Your task to perform on an android device: Go to accessibility settings Image 0: 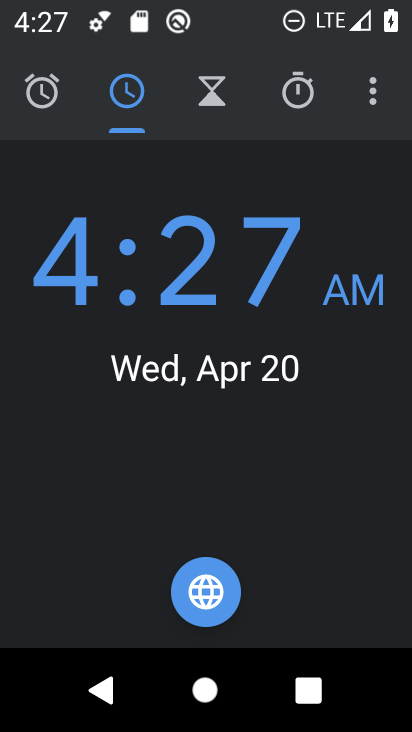
Step 0: press home button
Your task to perform on an android device: Go to accessibility settings Image 1: 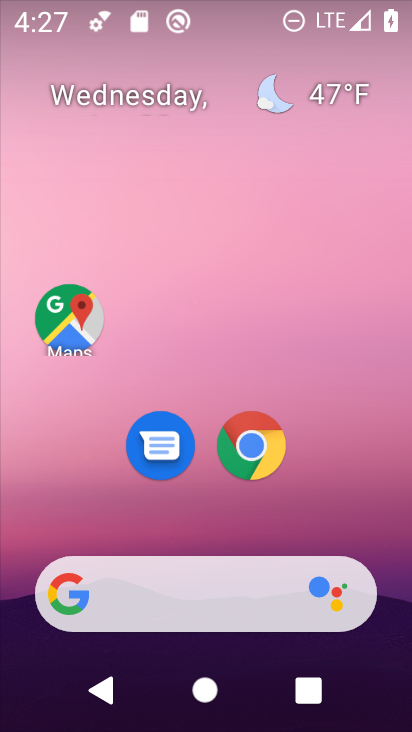
Step 1: drag from (319, 485) to (300, 42)
Your task to perform on an android device: Go to accessibility settings Image 2: 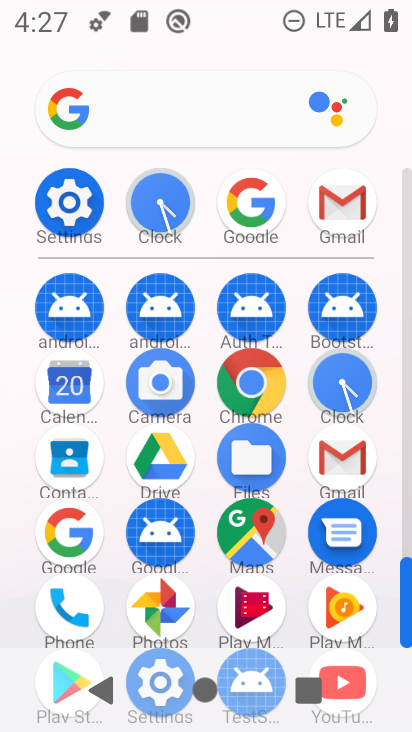
Step 2: click (70, 205)
Your task to perform on an android device: Go to accessibility settings Image 3: 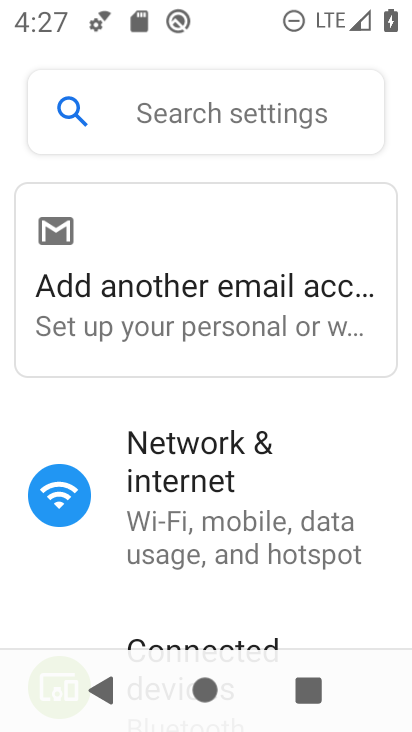
Step 3: drag from (306, 497) to (315, 248)
Your task to perform on an android device: Go to accessibility settings Image 4: 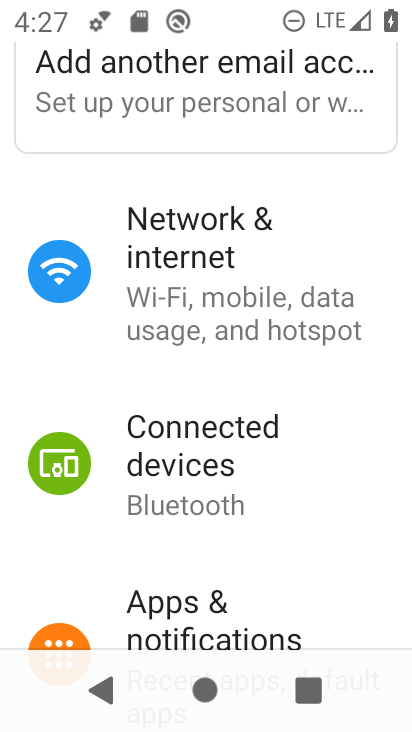
Step 4: drag from (262, 520) to (297, 282)
Your task to perform on an android device: Go to accessibility settings Image 5: 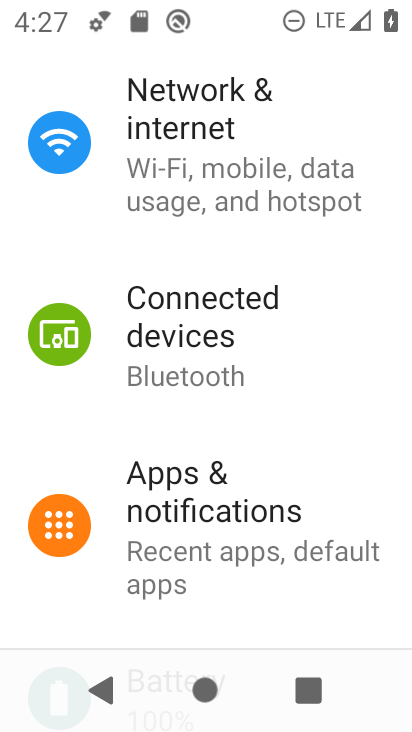
Step 5: drag from (270, 467) to (298, 318)
Your task to perform on an android device: Go to accessibility settings Image 6: 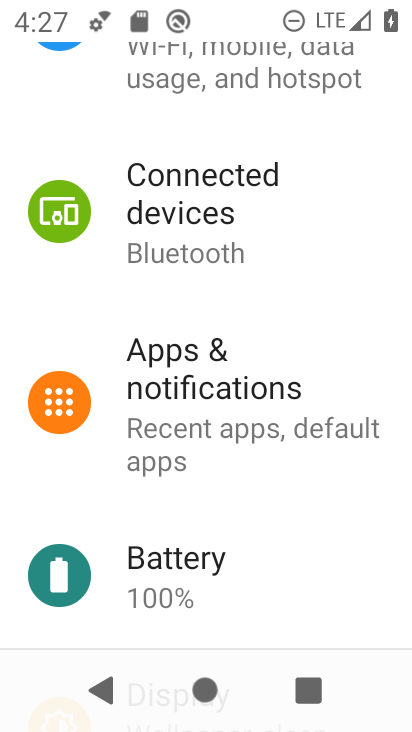
Step 6: drag from (246, 471) to (301, 288)
Your task to perform on an android device: Go to accessibility settings Image 7: 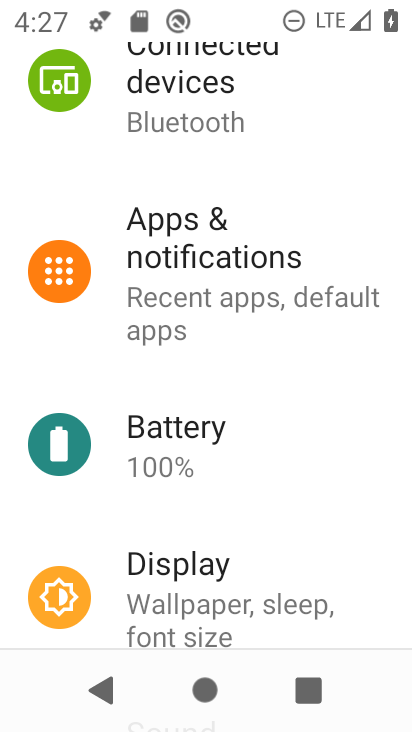
Step 7: drag from (263, 501) to (291, 267)
Your task to perform on an android device: Go to accessibility settings Image 8: 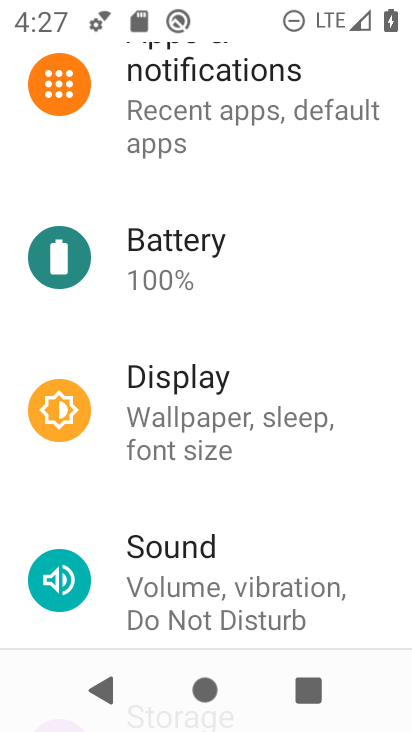
Step 8: drag from (264, 457) to (301, 263)
Your task to perform on an android device: Go to accessibility settings Image 9: 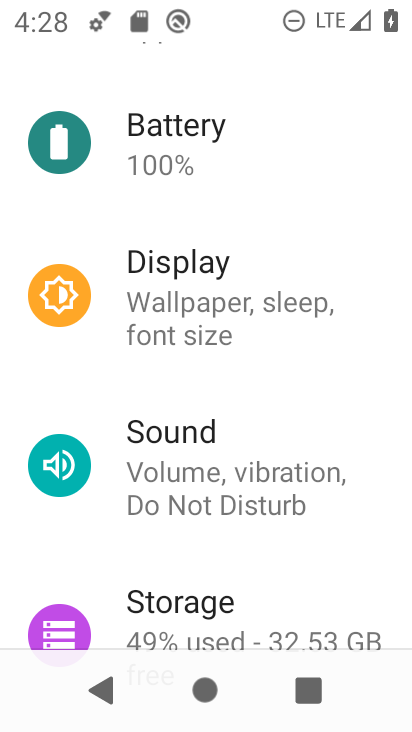
Step 9: drag from (280, 538) to (307, 322)
Your task to perform on an android device: Go to accessibility settings Image 10: 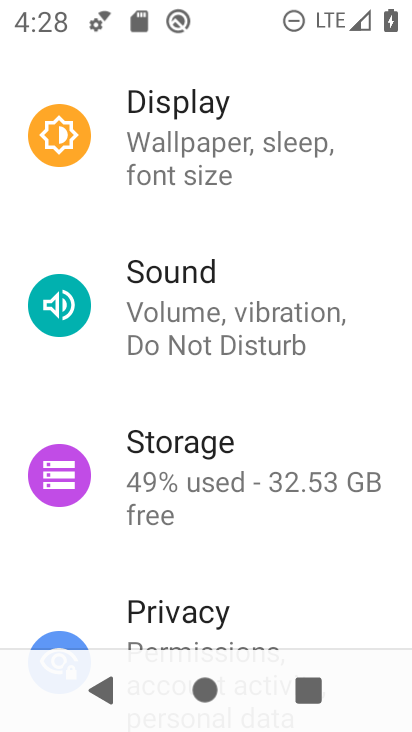
Step 10: drag from (259, 546) to (289, 340)
Your task to perform on an android device: Go to accessibility settings Image 11: 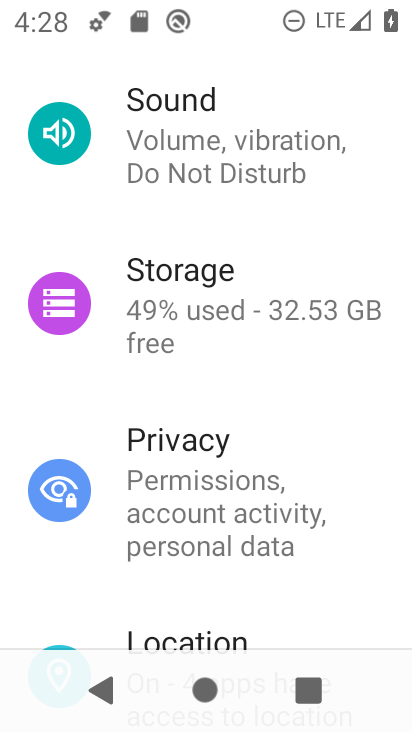
Step 11: drag from (282, 460) to (341, 306)
Your task to perform on an android device: Go to accessibility settings Image 12: 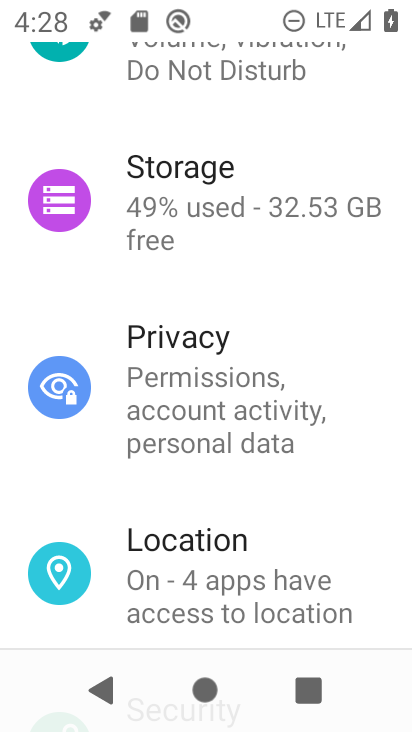
Step 12: drag from (277, 529) to (336, 328)
Your task to perform on an android device: Go to accessibility settings Image 13: 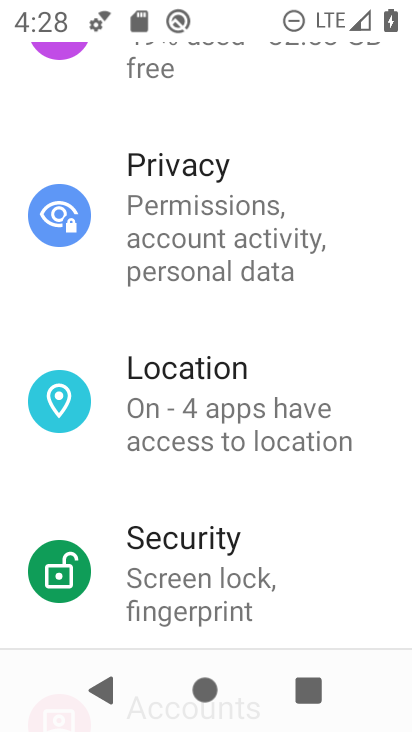
Step 13: drag from (292, 577) to (337, 347)
Your task to perform on an android device: Go to accessibility settings Image 14: 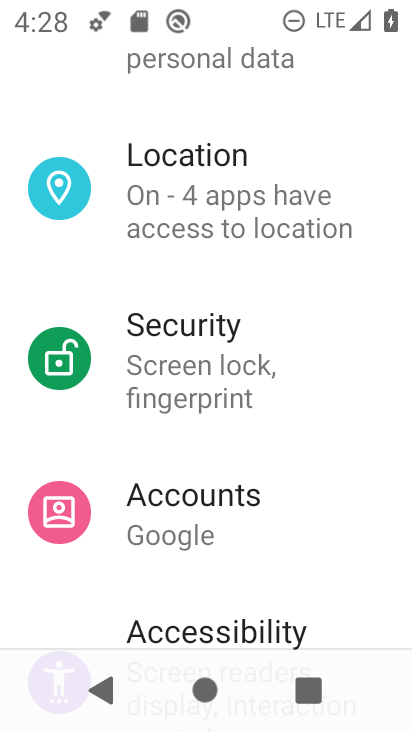
Step 14: drag from (293, 541) to (340, 334)
Your task to perform on an android device: Go to accessibility settings Image 15: 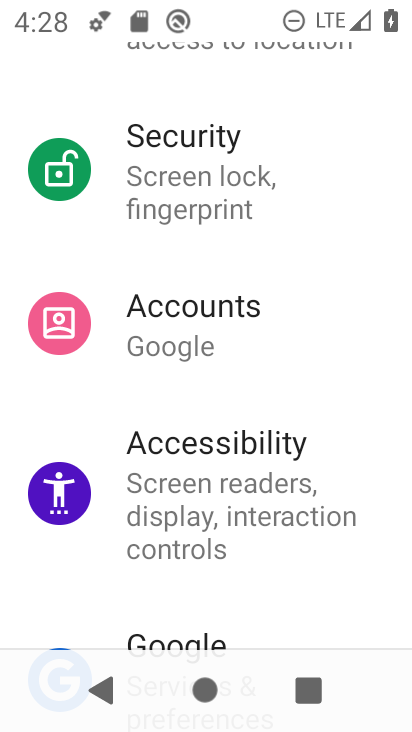
Step 15: click (282, 436)
Your task to perform on an android device: Go to accessibility settings Image 16: 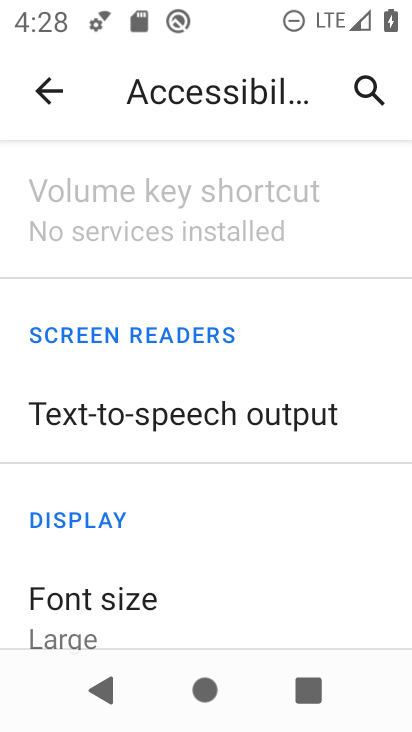
Step 16: task complete